Your task to perform on an android device: install app "Google Photos" Image 0: 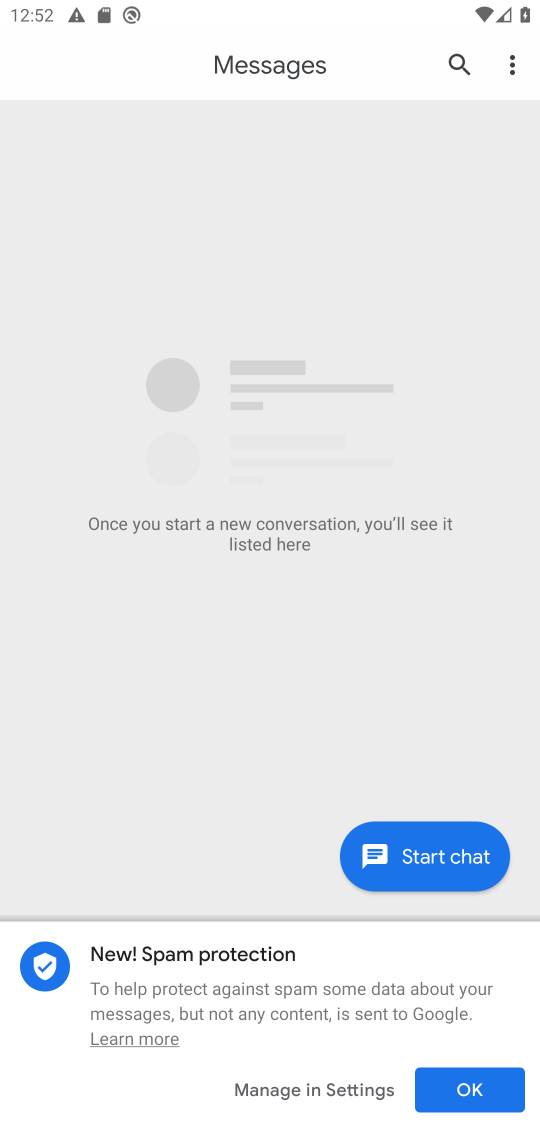
Step 0: press home button
Your task to perform on an android device: install app "Google Photos" Image 1: 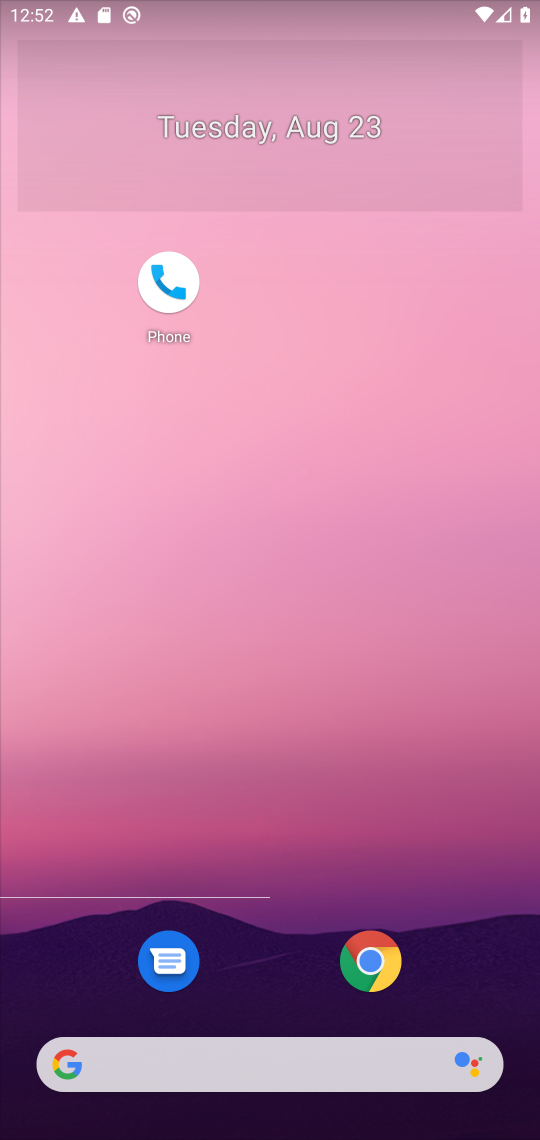
Step 1: drag from (284, 997) to (188, 126)
Your task to perform on an android device: install app "Google Photos" Image 2: 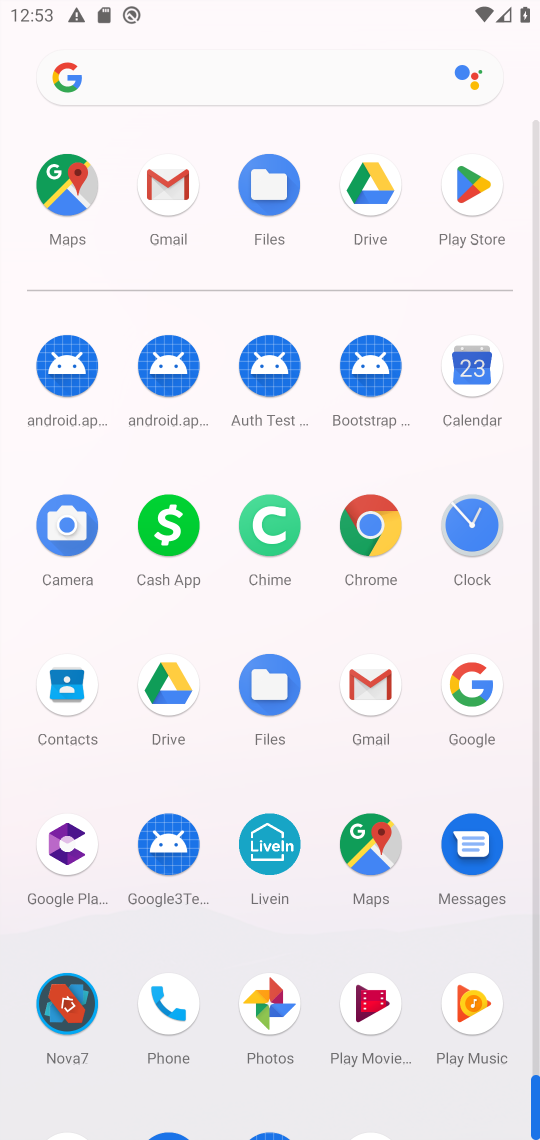
Step 2: click (476, 228)
Your task to perform on an android device: install app "Google Photos" Image 3: 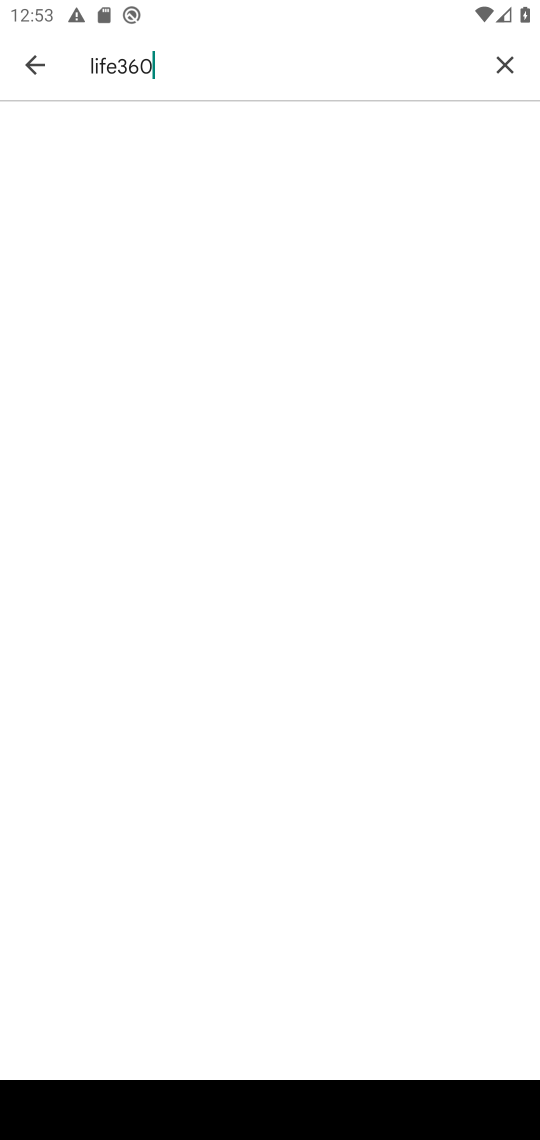
Step 3: click (500, 79)
Your task to perform on an android device: install app "Google Photos" Image 4: 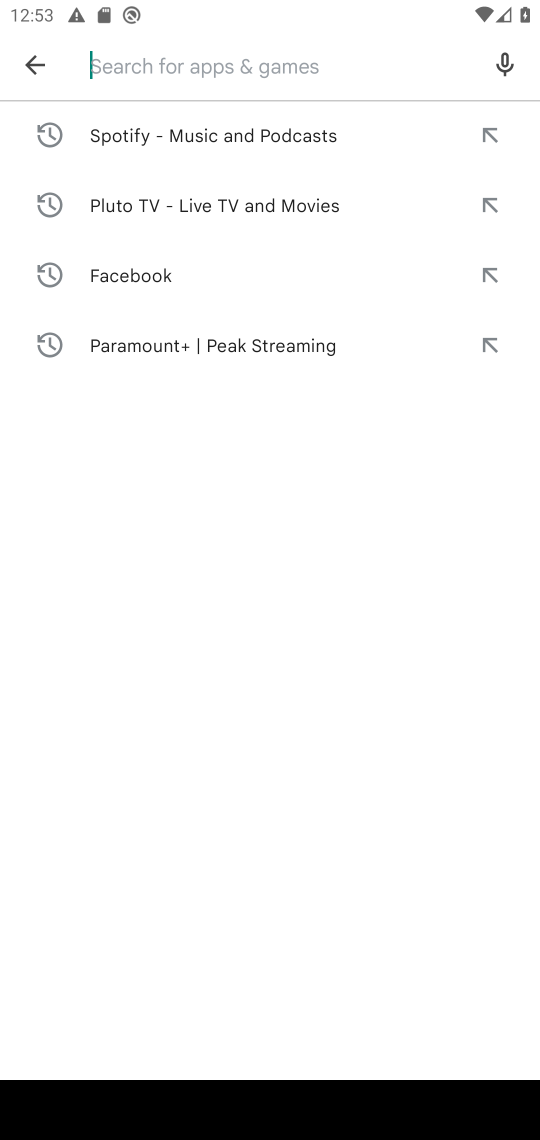
Step 4: type "google photo"
Your task to perform on an android device: install app "Google Photos" Image 5: 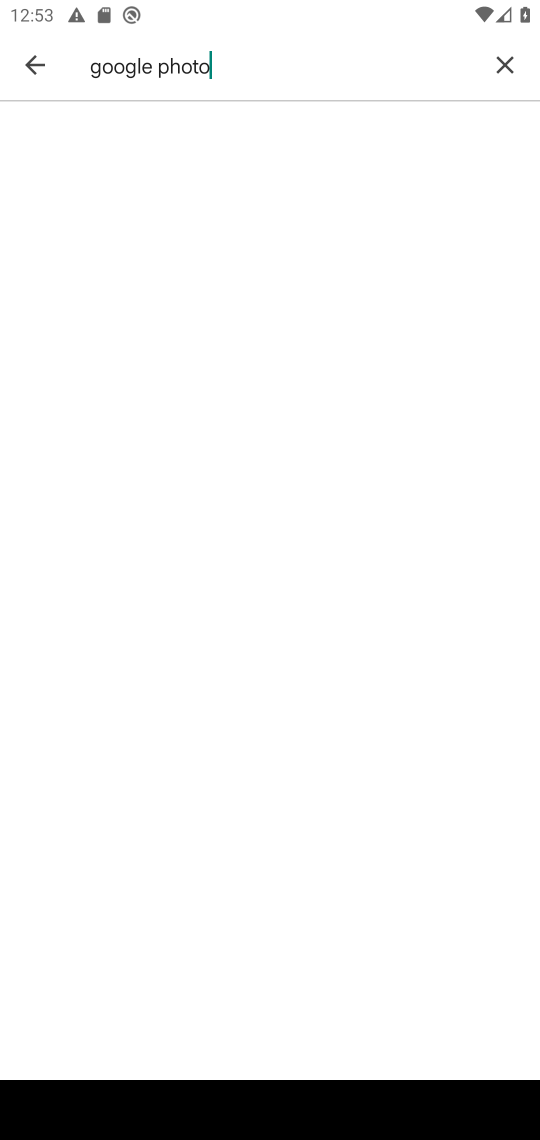
Step 5: task complete